Your task to perform on an android device: Show me popular games on the Play Store Image 0: 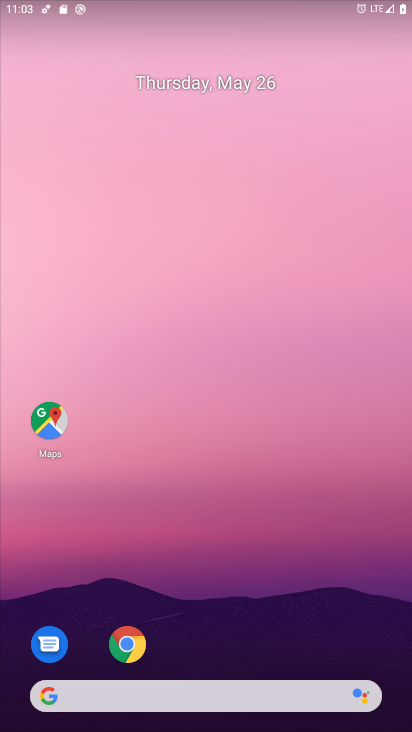
Step 0: drag from (331, 643) to (357, 283)
Your task to perform on an android device: Show me popular games on the Play Store Image 1: 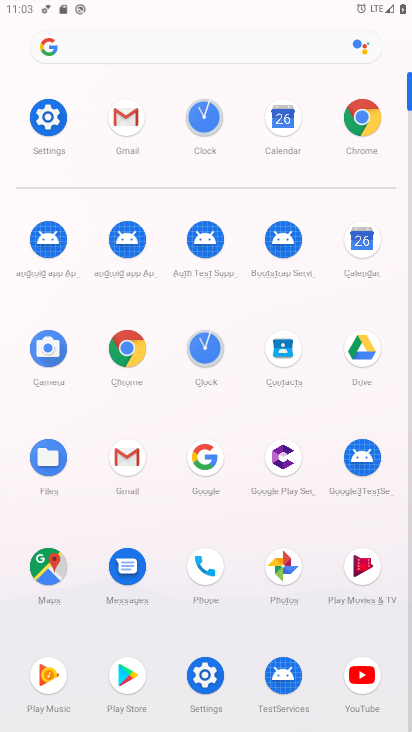
Step 1: click (125, 681)
Your task to perform on an android device: Show me popular games on the Play Store Image 2: 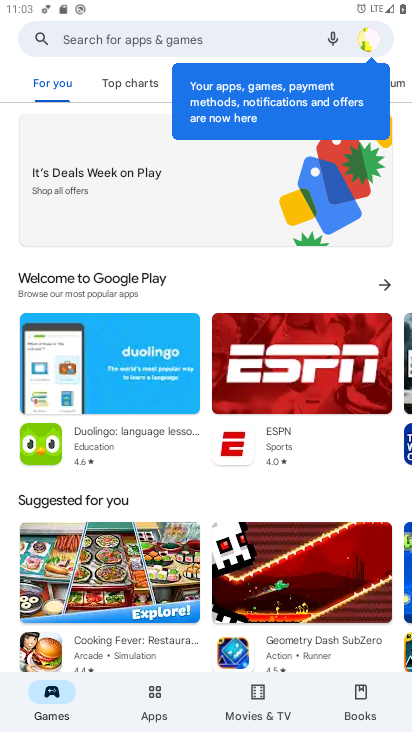
Step 2: task complete